Your task to perform on an android device: Open calendar and show me the fourth week of next month Image 0: 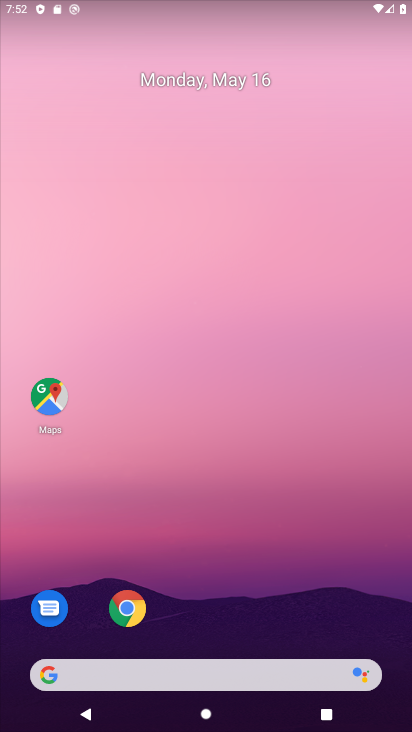
Step 0: drag from (20, 632) to (181, 266)
Your task to perform on an android device: Open calendar and show me the fourth week of next month Image 1: 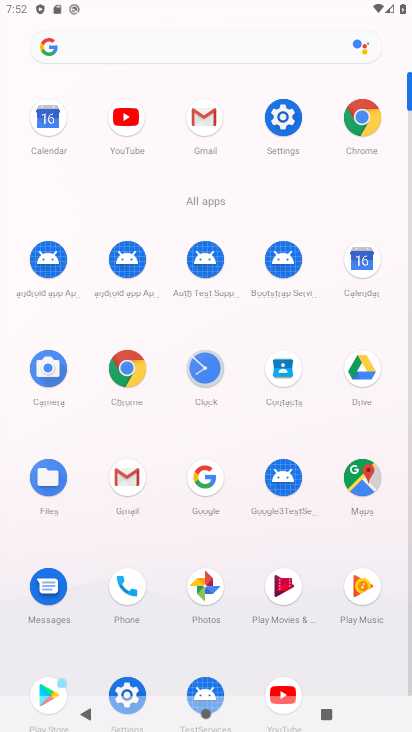
Step 1: click (355, 266)
Your task to perform on an android device: Open calendar and show me the fourth week of next month Image 2: 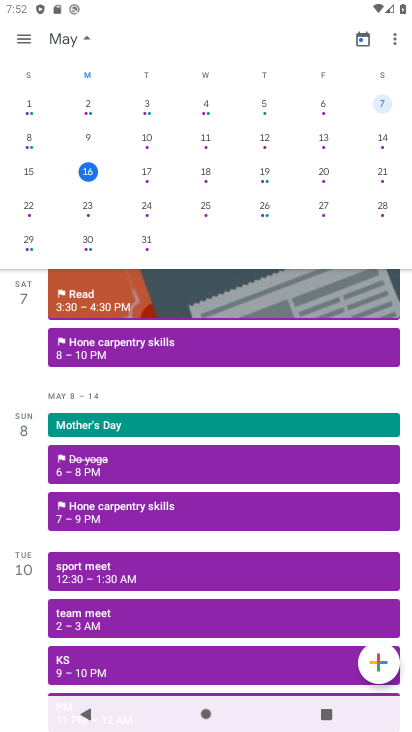
Step 2: drag from (352, 129) to (196, 366)
Your task to perform on an android device: Open calendar and show me the fourth week of next month Image 3: 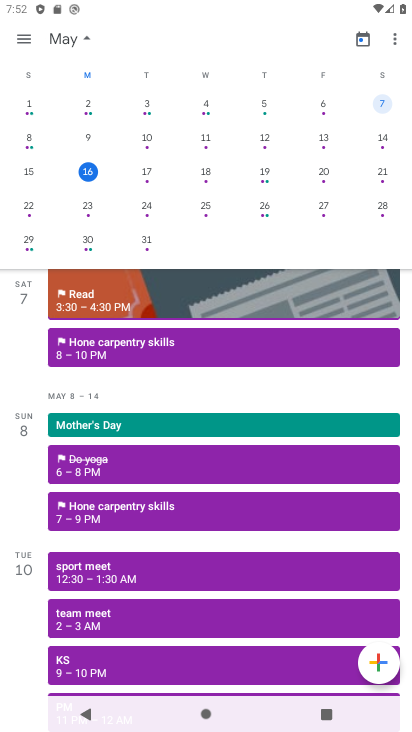
Step 3: drag from (284, 140) to (2, 76)
Your task to perform on an android device: Open calendar and show me the fourth week of next month Image 4: 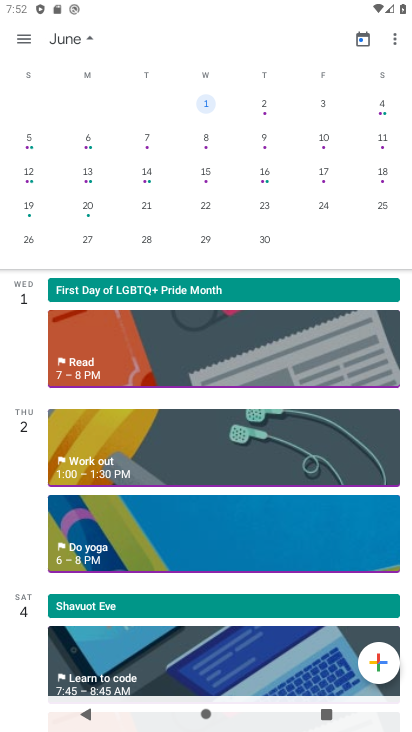
Step 4: click (196, 129)
Your task to perform on an android device: Open calendar and show me the fourth week of next month Image 5: 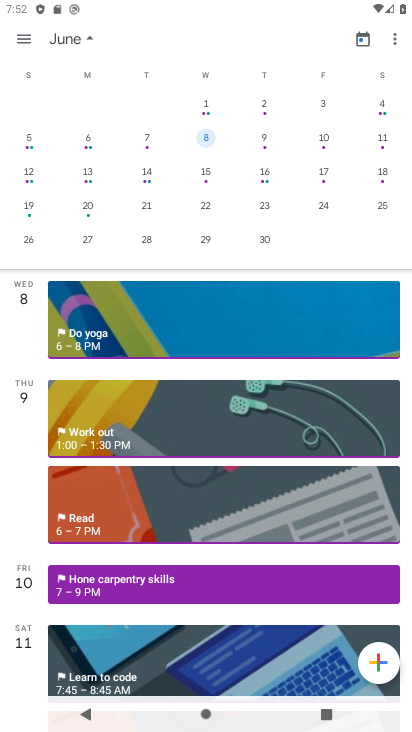
Step 5: click (204, 168)
Your task to perform on an android device: Open calendar and show me the fourth week of next month Image 6: 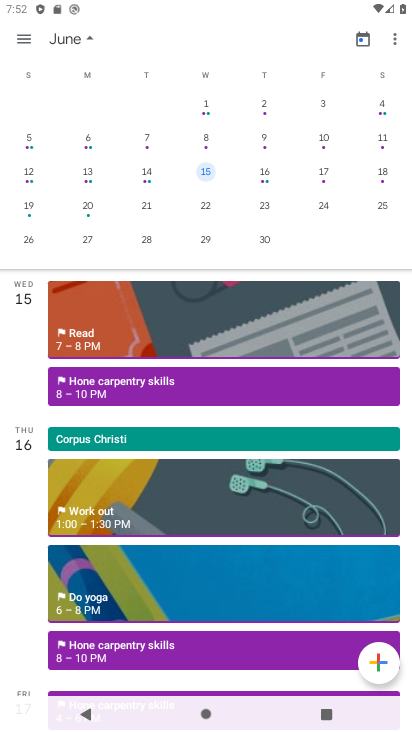
Step 6: click (202, 208)
Your task to perform on an android device: Open calendar and show me the fourth week of next month Image 7: 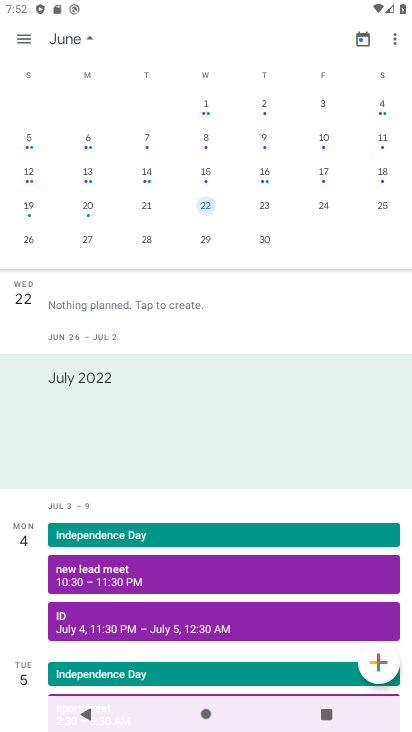
Step 7: task complete